Your task to perform on an android device: Open Android settings Image 0: 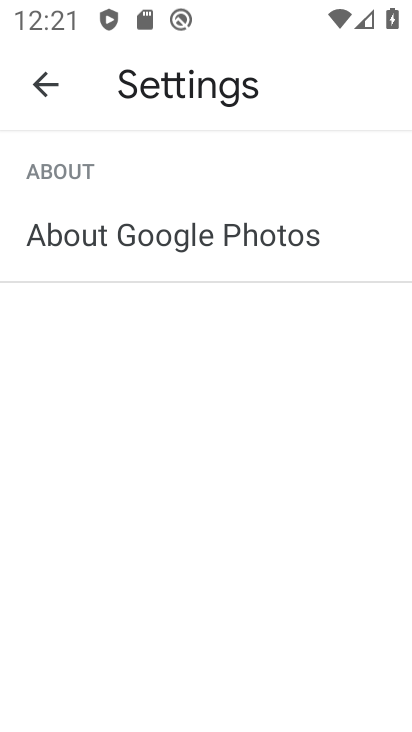
Step 0: press home button
Your task to perform on an android device: Open Android settings Image 1: 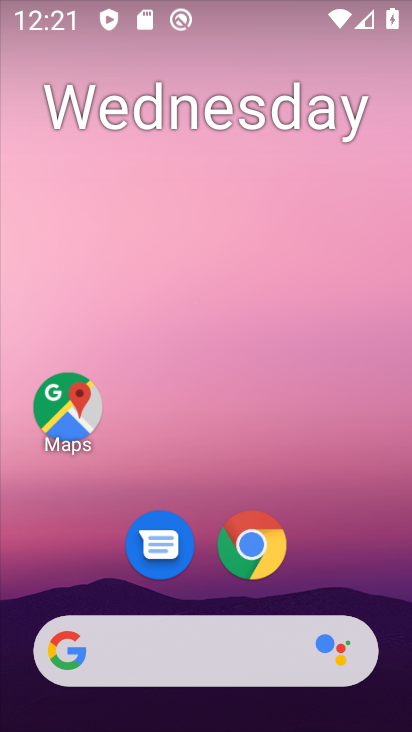
Step 1: drag from (347, 597) to (264, 204)
Your task to perform on an android device: Open Android settings Image 2: 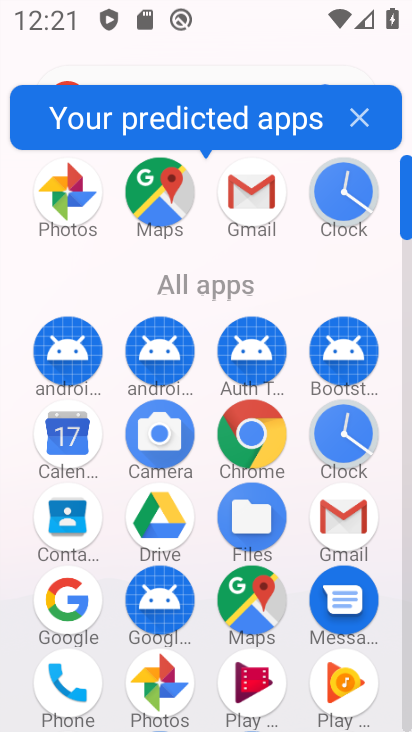
Step 2: drag from (194, 304) to (170, 185)
Your task to perform on an android device: Open Android settings Image 3: 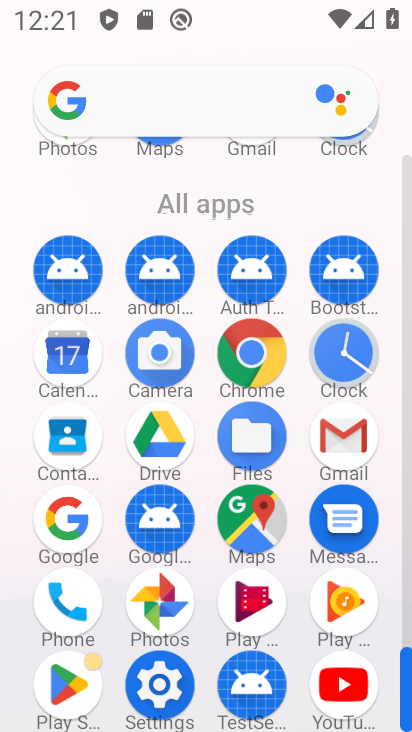
Step 3: click (150, 670)
Your task to perform on an android device: Open Android settings Image 4: 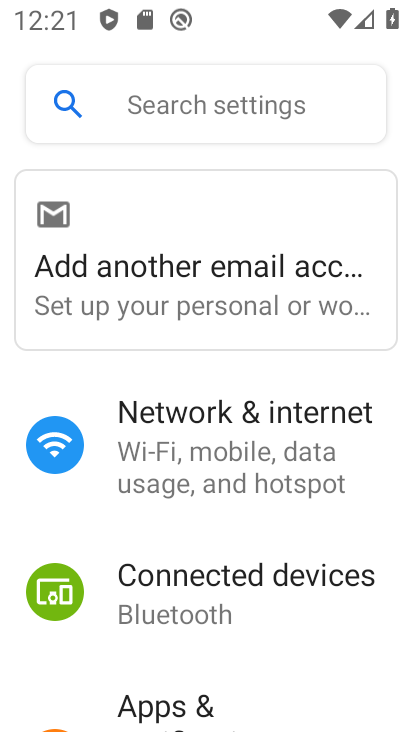
Step 4: task complete